Your task to perform on an android device: set an alarm Image 0: 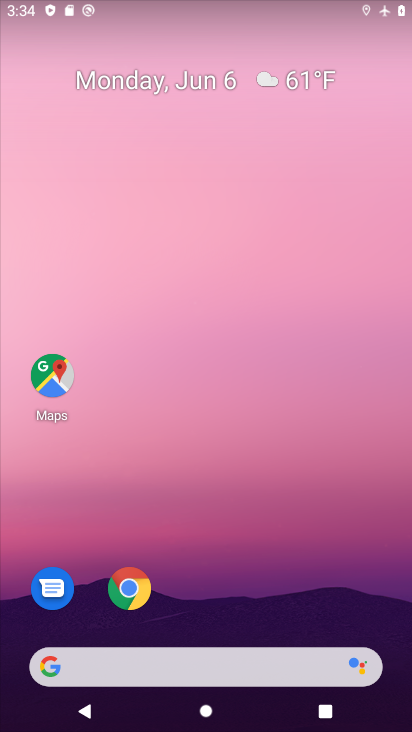
Step 0: drag from (238, 619) to (215, 255)
Your task to perform on an android device: set an alarm Image 1: 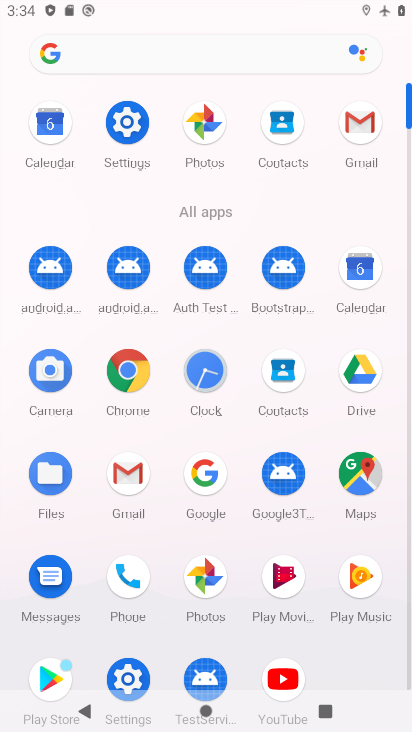
Step 1: click (197, 363)
Your task to perform on an android device: set an alarm Image 2: 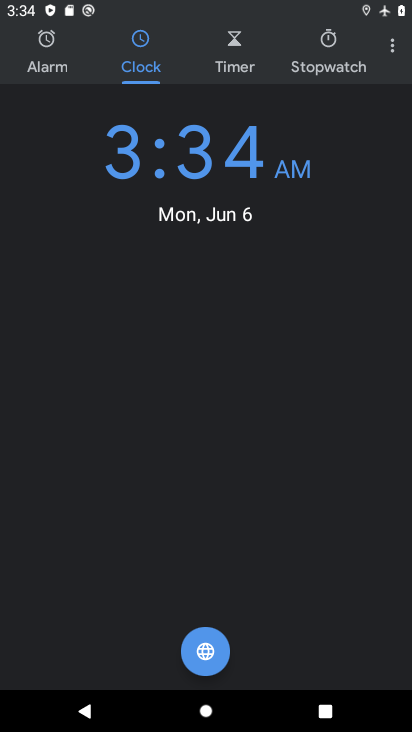
Step 2: click (57, 63)
Your task to perform on an android device: set an alarm Image 3: 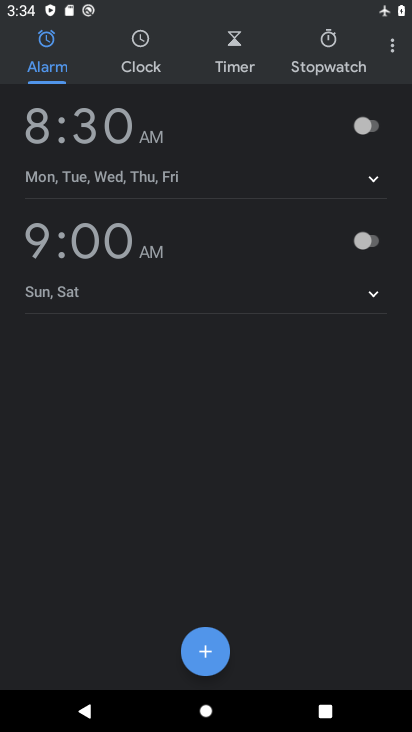
Step 3: click (214, 643)
Your task to perform on an android device: set an alarm Image 4: 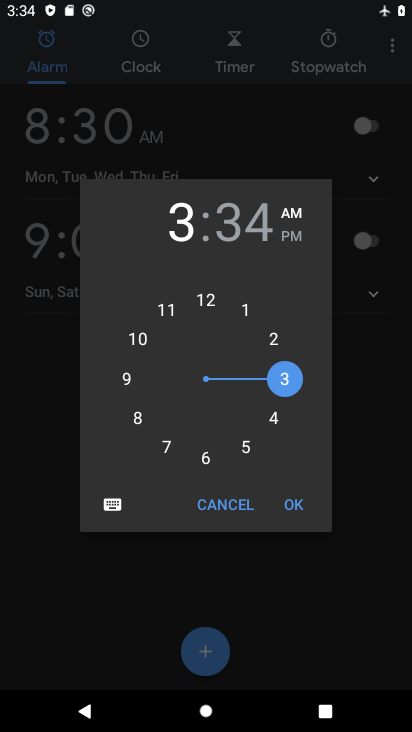
Step 4: click (310, 504)
Your task to perform on an android device: set an alarm Image 5: 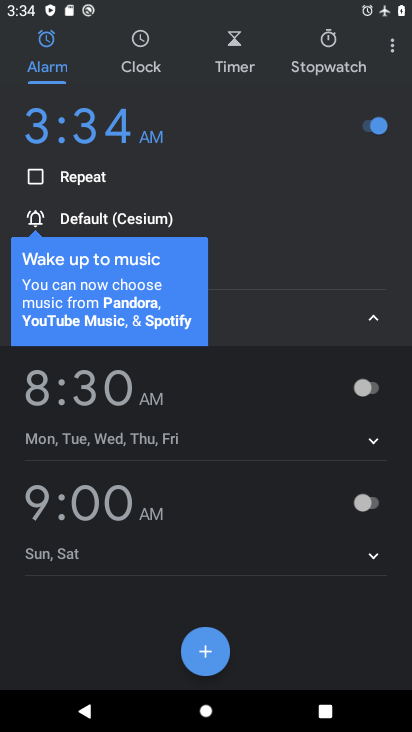
Step 5: task complete